Your task to perform on an android device: Search for sushi restaurants on Maps Image 0: 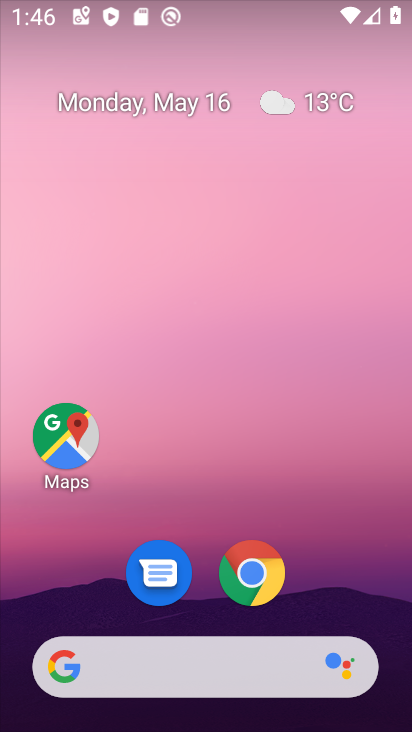
Step 0: click (62, 438)
Your task to perform on an android device: Search for sushi restaurants on Maps Image 1: 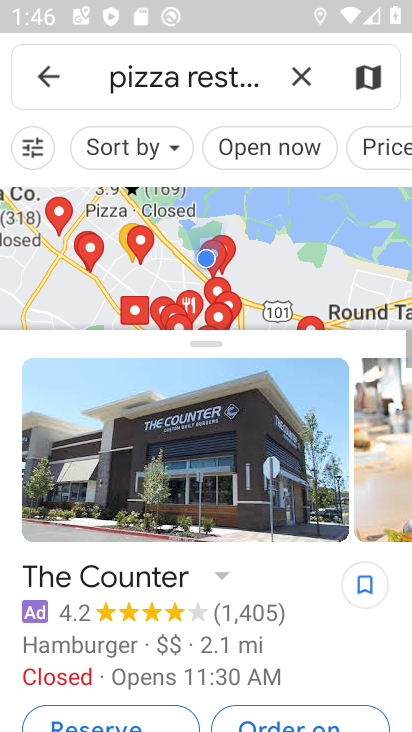
Step 1: click (301, 73)
Your task to perform on an android device: Search for sushi restaurants on Maps Image 2: 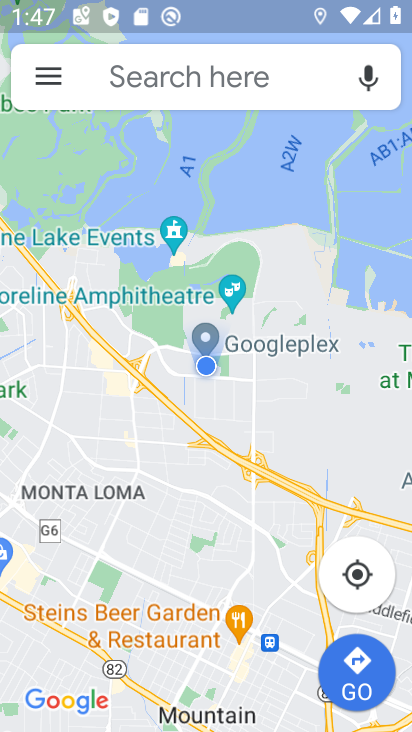
Step 2: click (189, 77)
Your task to perform on an android device: Search for sushi restaurants on Maps Image 3: 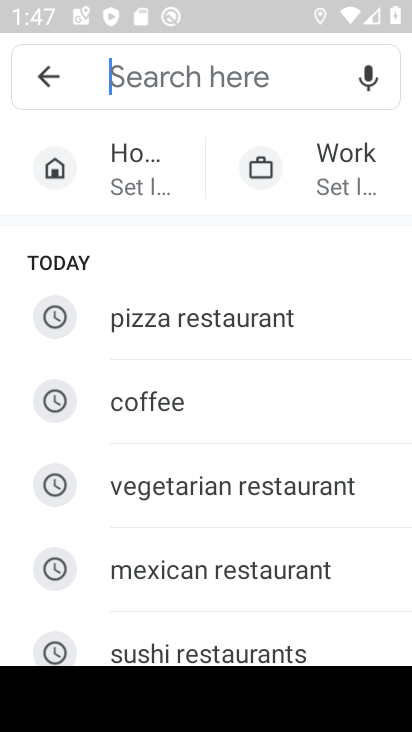
Step 3: click (188, 648)
Your task to perform on an android device: Search for sushi restaurants on Maps Image 4: 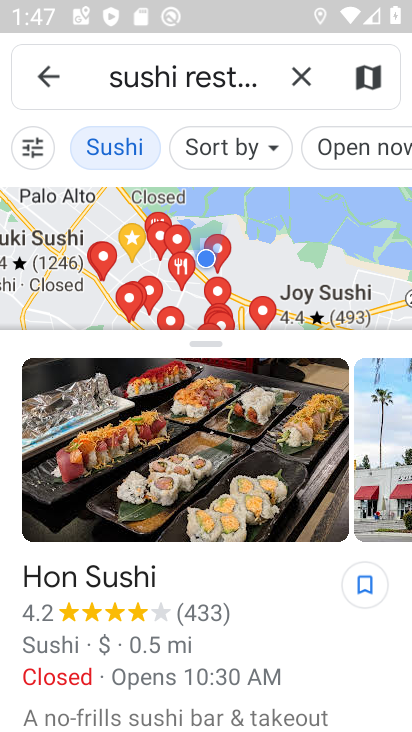
Step 4: task complete